Your task to perform on an android device: What's the weather today? Image 0: 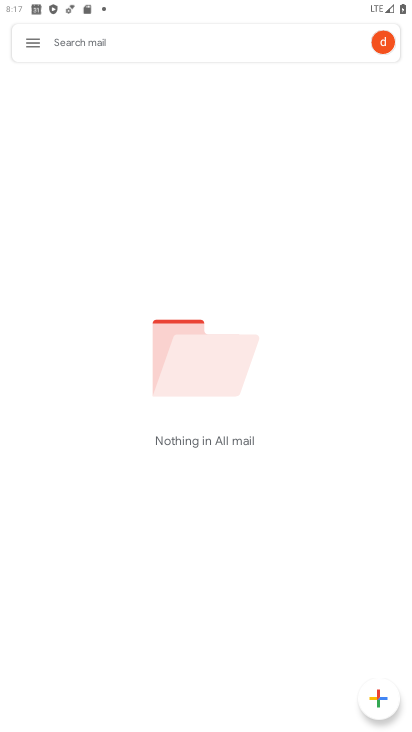
Step 0: press home button
Your task to perform on an android device: What's the weather today? Image 1: 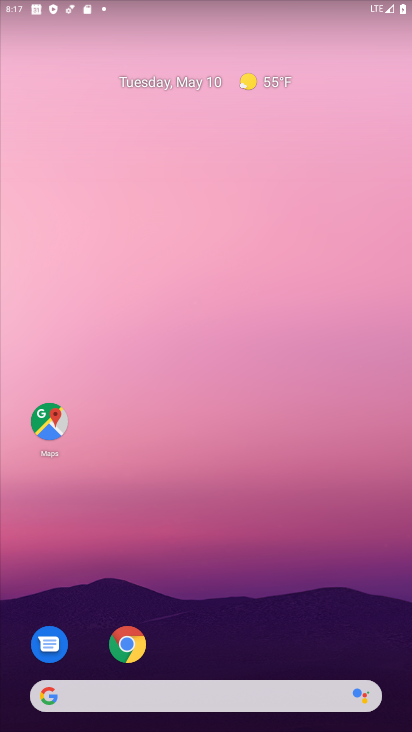
Step 1: drag from (209, 611) to (263, 176)
Your task to perform on an android device: What's the weather today? Image 2: 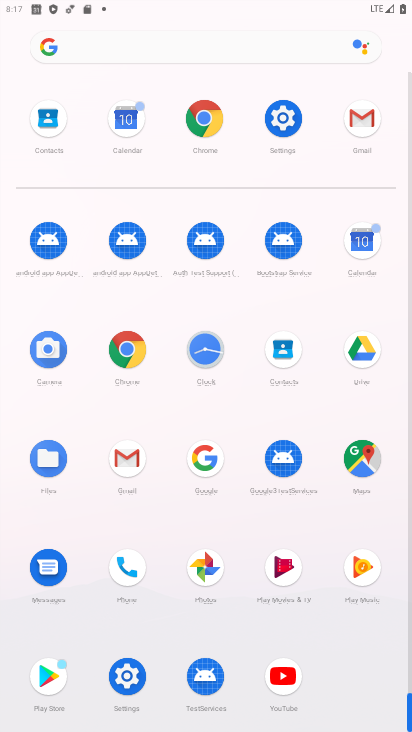
Step 2: click (207, 471)
Your task to perform on an android device: What's the weather today? Image 3: 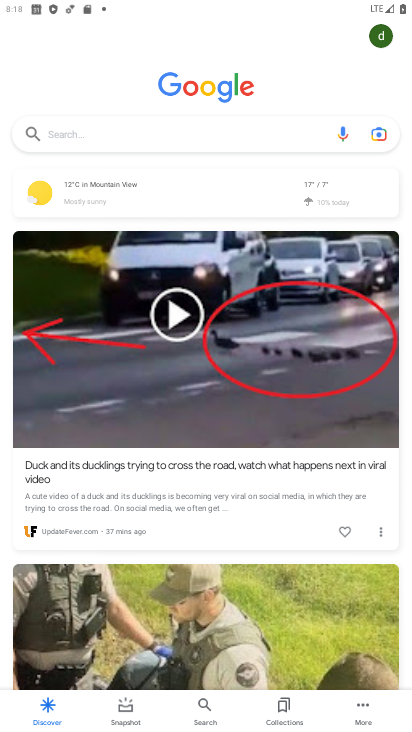
Step 3: click (187, 151)
Your task to perform on an android device: What's the weather today? Image 4: 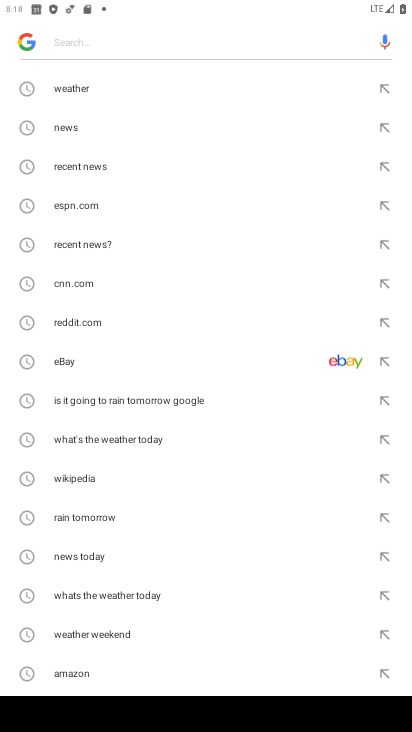
Step 4: click (116, 97)
Your task to perform on an android device: What's the weather today? Image 5: 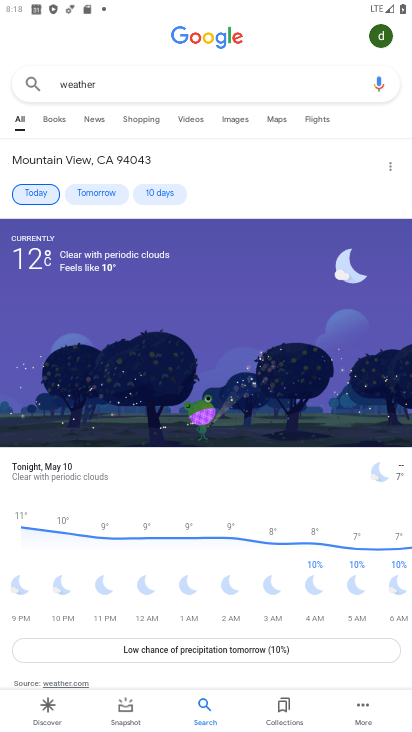
Step 5: task complete